Your task to perform on an android device: Open sound settings Image 0: 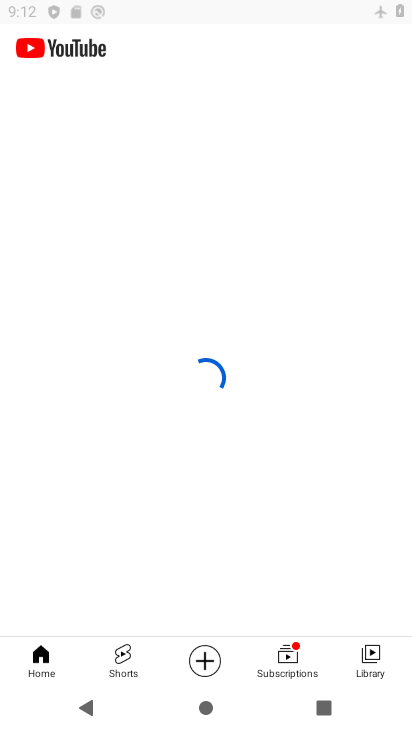
Step 0: drag from (391, 615) to (332, 266)
Your task to perform on an android device: Open sound settings Image 1: 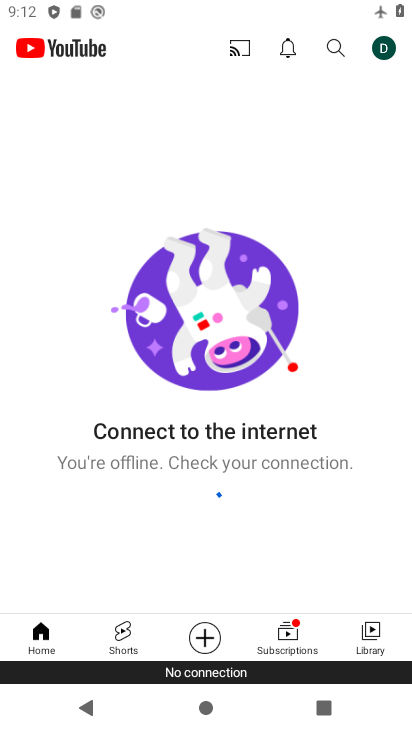
Step 1: press home button
Your task to perform on an android device: Open sound settings Image 2: 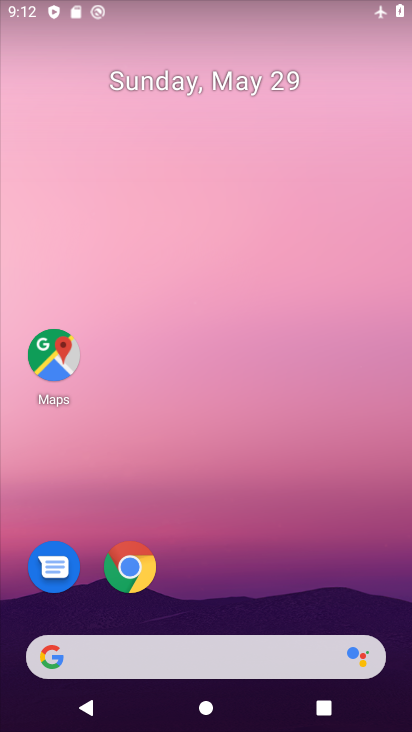
Step 2: drag from (377, 624) to (321, 129)
Your task to perform on an android device: Open sound settings Image 3: 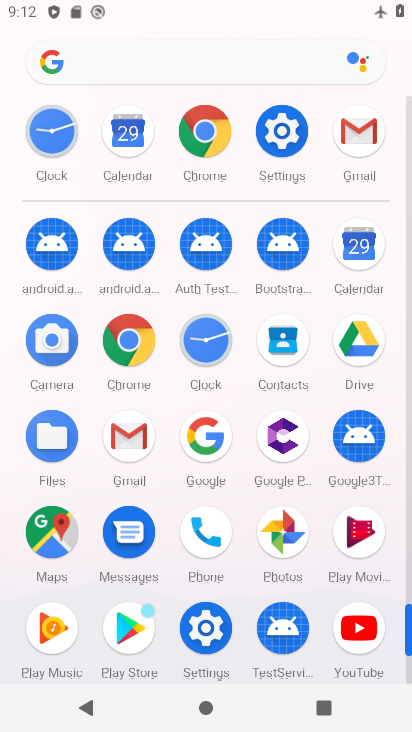
Step 3: click (206, 629)
Your task to perform on an android device: Open sound settings Image 4: 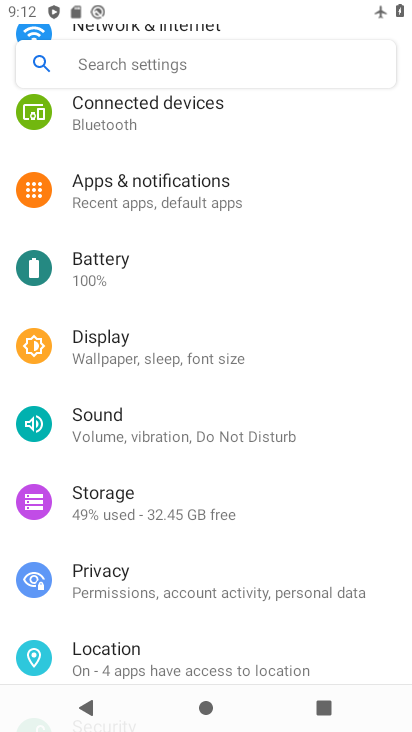
Step 4: click (123, 432)
Your task to perform on an android device: Open sound settings Image 5: 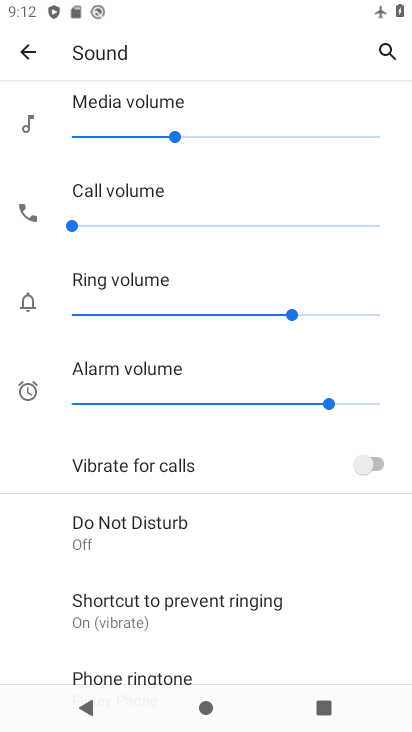
Step 5: drag from (244, 616) to (249, 69)
Your task to perform on an android device: Open sound settings Image 6: 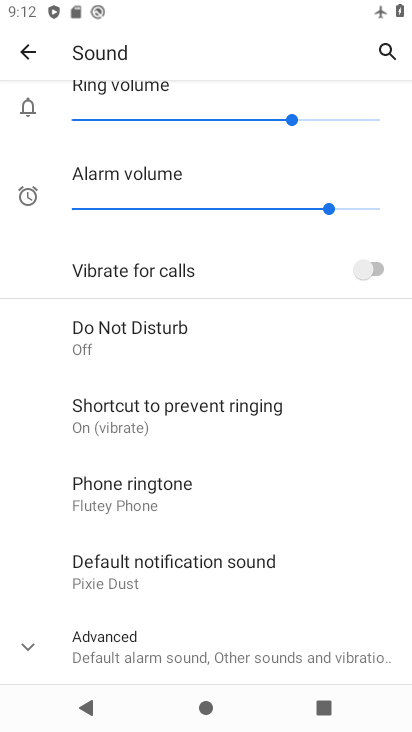
Step 6: click (19, 645)
Your task to perform on an android device: Open sound settings Image 7: 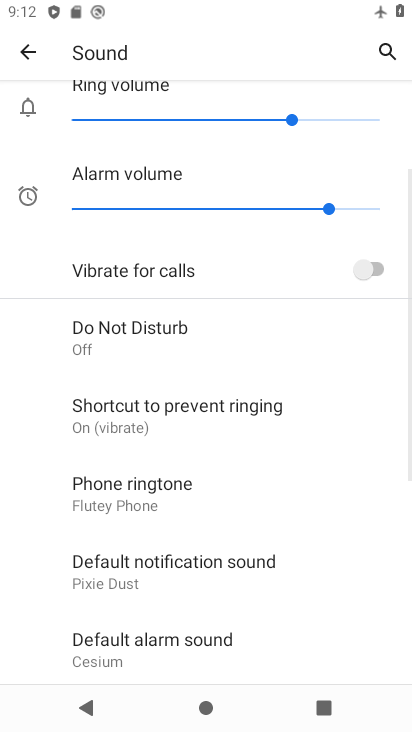
Step 7: task complete